Your task to perform on an android device: check the backup settings in the google photos Image 0: 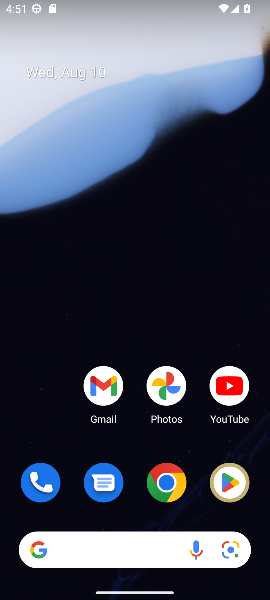
Step 0: click (177, 388)
Your task to perform on an android device: check the backup settings in the google photos Image 1: 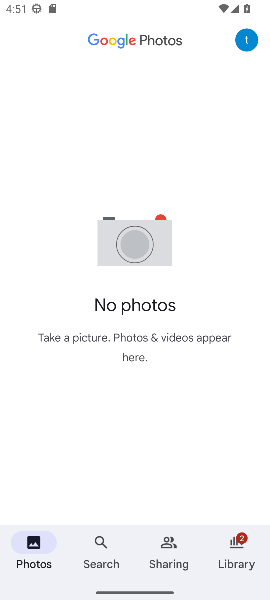
Step 1: click (246, 43)
Your task to perform on an android device: check the backup settings in the google photos Image 2: 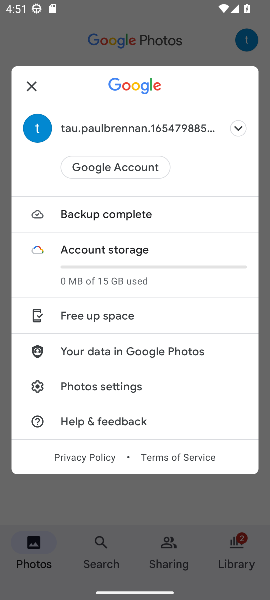
Step 2: click (117, 383)
Your task to perform on an android device: check the backup settings in the google photos Image 3: 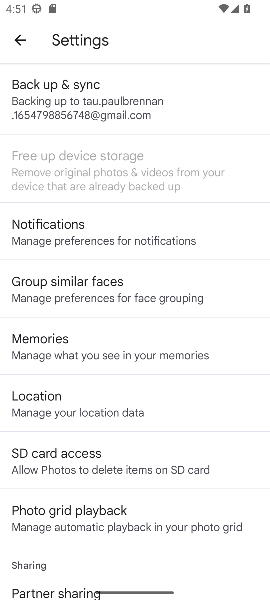
Step 3: click (118, 100)
Your task to perform on an android device: check the backup settings in the google photos Image 4: 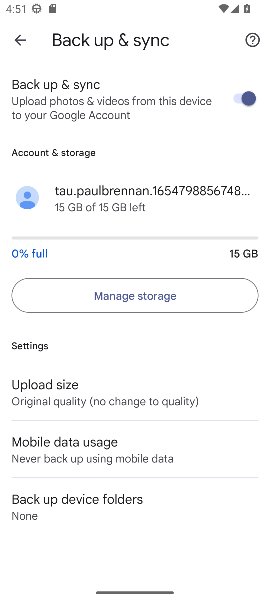
Step 4: task complete